Your task to perform on an android device: see sites visited before in the chrome app Image 0: 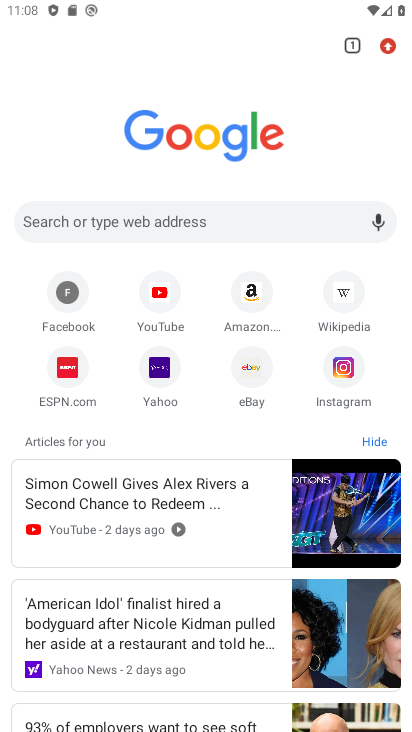
Step 0: drag from (205, 614) to (133, 150)
Your task to perform on an android device: see sites visited before in the chrome app Image 1: 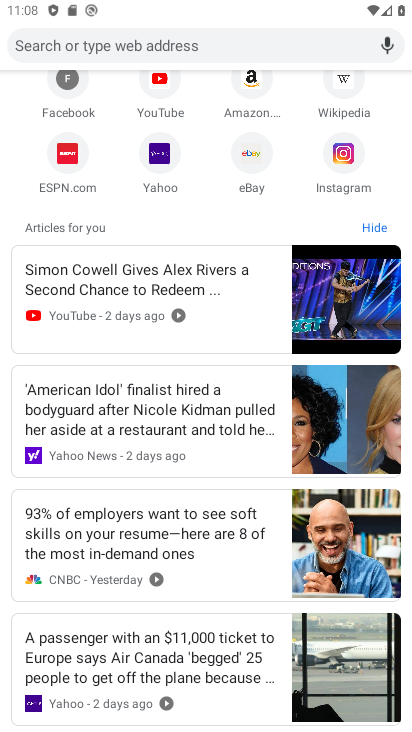
Step 1: drag from (265, 234) to (265, 524)
Your task to perform on an android device: see sites visited before in the chrome app Image 2: 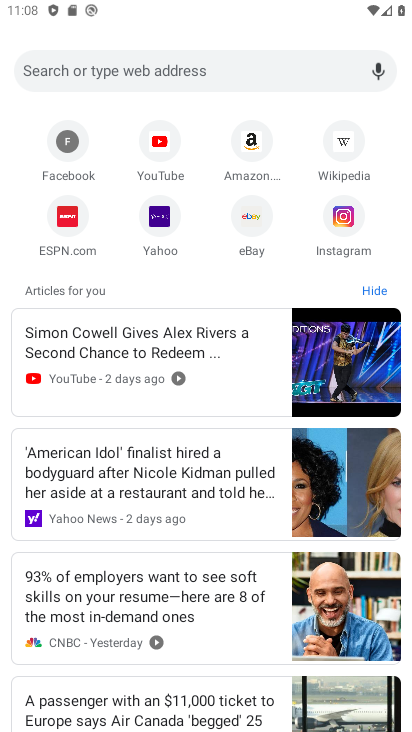
Step 2: drag from (192, 162) to (269, 595)
Your task to perform on an android device: see sites visited before in the chrome app Image 3: 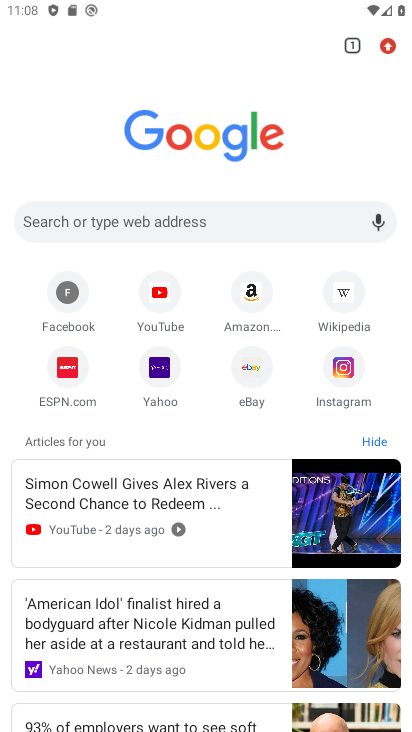
Step 3: click (383, 17)
Your task to perform on an android device: see sites visited before in the chrome app Image 4: 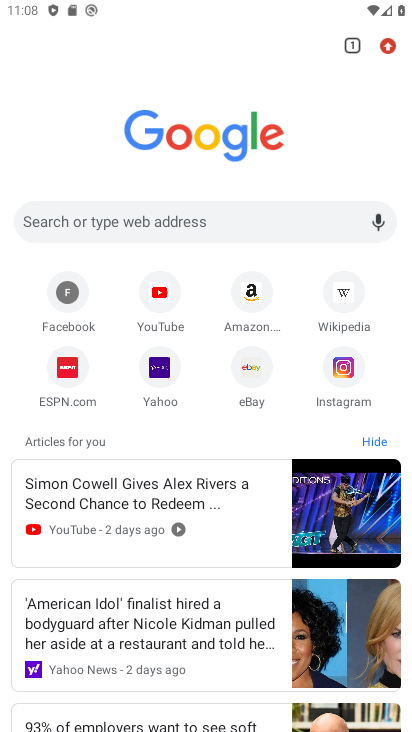
Step 4: click (388, 37)
Your task to perform on an android device: see sites visited before in the chrome app Image 5: 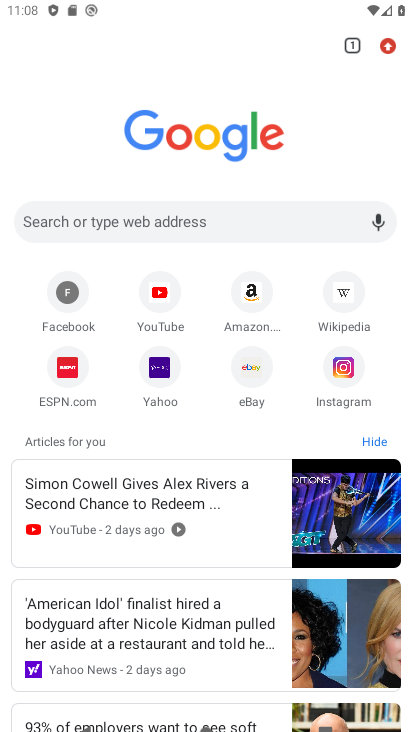
Step 5: click (388, 38)
Your task to perform on an android device: see sites visited before in the chrome app Image 6: 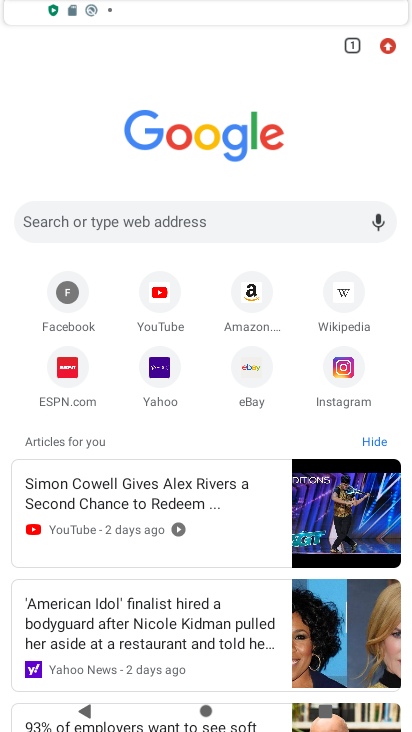
Step 6: click (388, 39)
Your task to perform on an android device: see sites visited before in the chrome app Image 7: 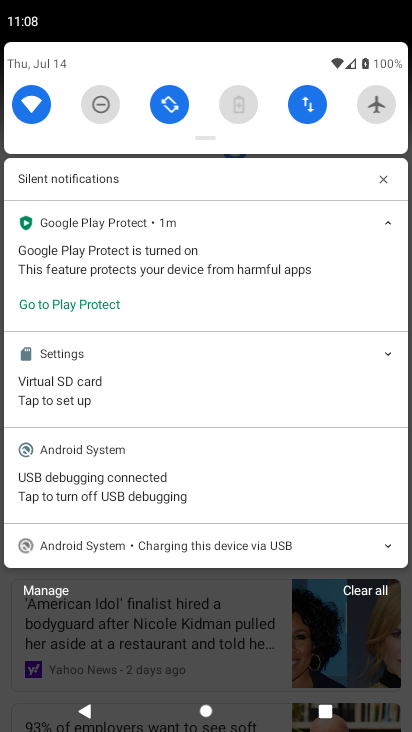
Step 7: click (223, 4)
Your task to perform on an android device: see sites visited before in the chrome app Image 8: 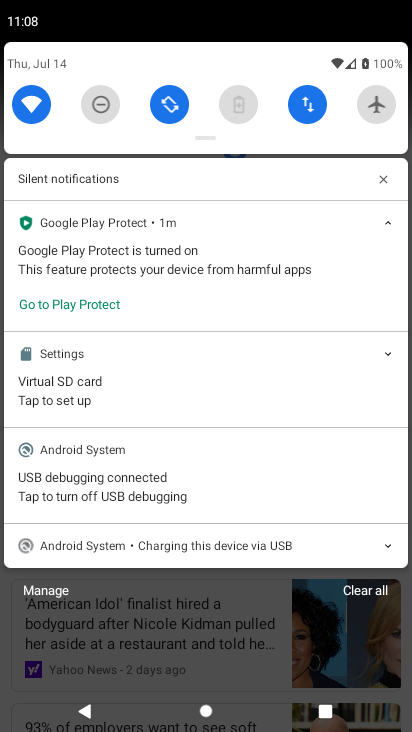
Step 8: click (222, 10)
Your task to perform on an android device: see sites visited before in the chrome app Image 9: 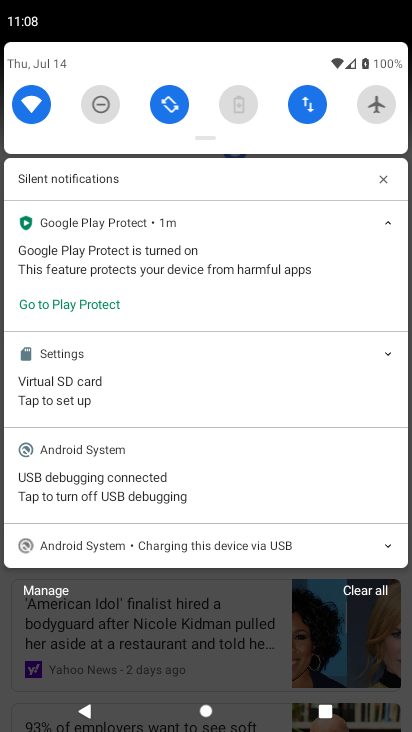
Step 9: click (223, 11)
Your task to perform on an android device: see sites visited before in the chrome app Image 10: 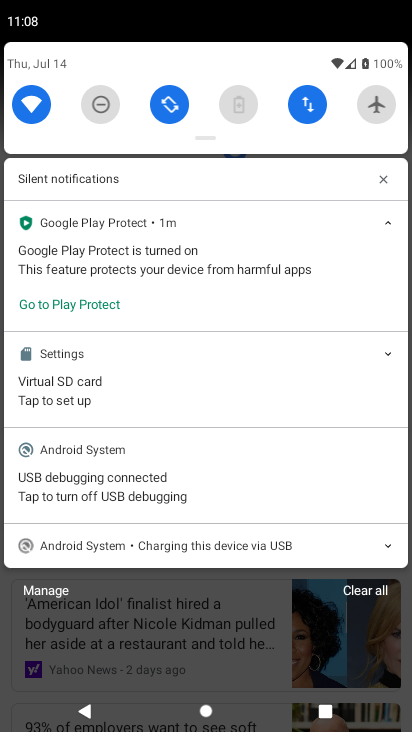
Step 10: click (223, 11)
Your task to perform on an android device: see sites visited before in the chrome app Image 11: 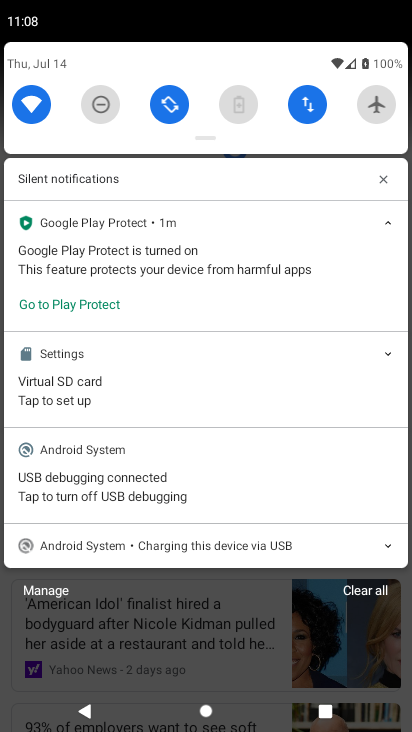
Step 11: press back button
Your task to perform on an android device: see sites visited before in the chrome app Image 12: 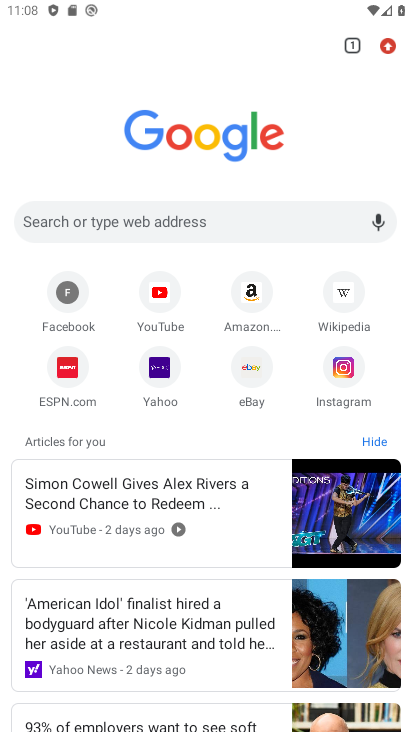
Step 12: drag from (387, 52) to (219, 265)
Your task to perform on an android device: see sites visited before in the chrome app Image 13: 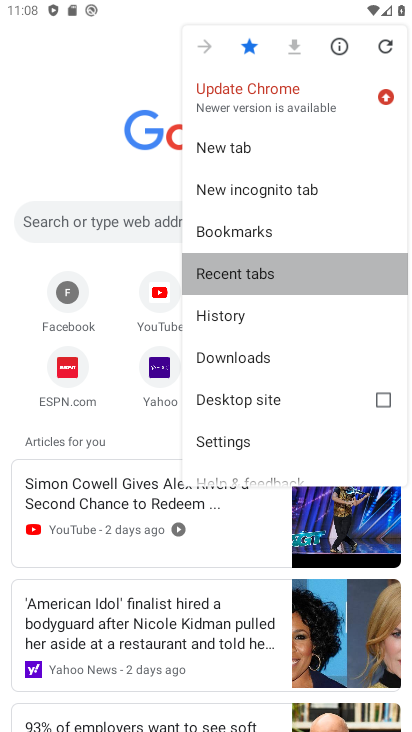
Step 13: click (214, 244)
Your task to perform on an android device: see sites visited before in the chrome app Image 14: 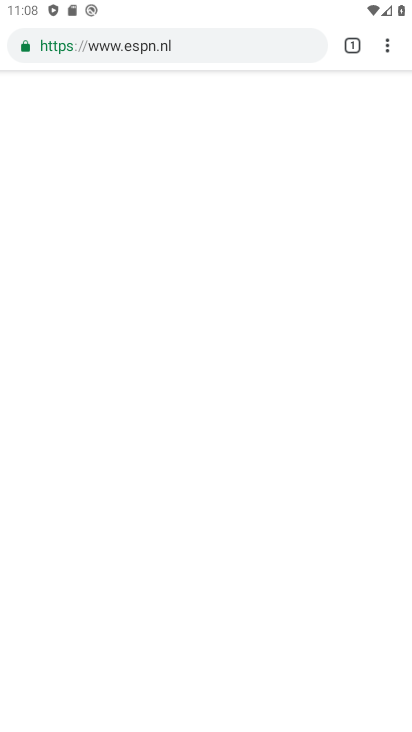
Step 14: task complete